Your task to perform on an android device: turn on location history Image 0: 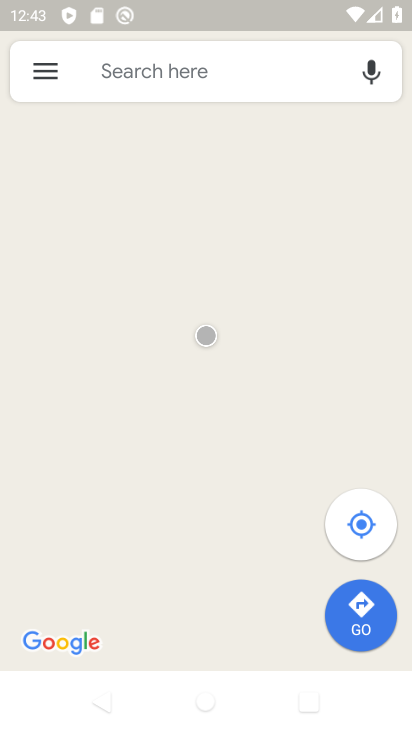
Step 0: press home button
Your task to perform on an android device: turn on location history Image 1: 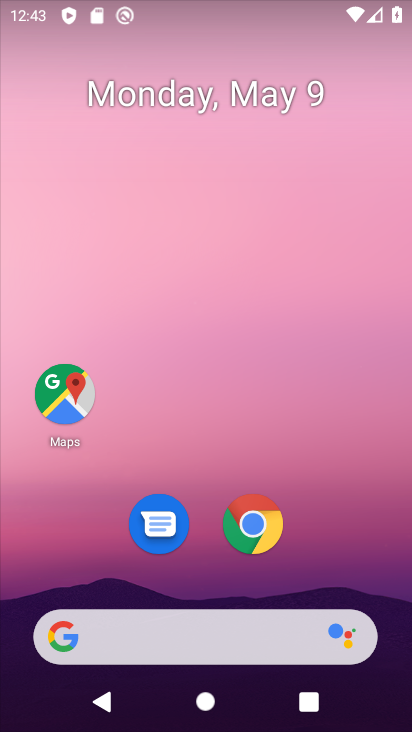
Step 1: drag from (188, 562) to (185, 149)
Your task to perform on an android device: turn on location history Image 2: 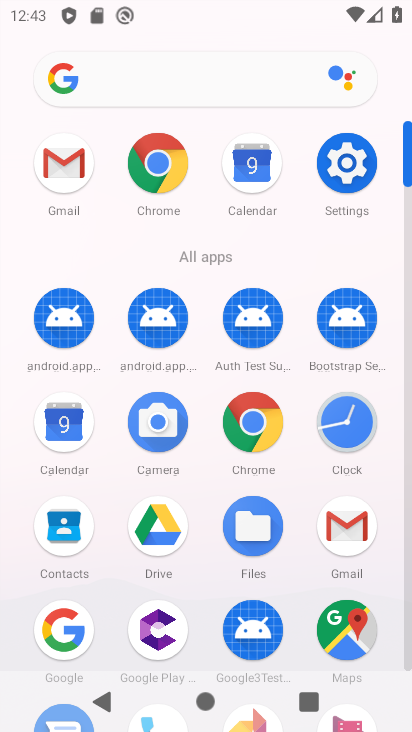
Step 2: click (327, 160)
Your task to perform on an android device: turn on location history Image 3: 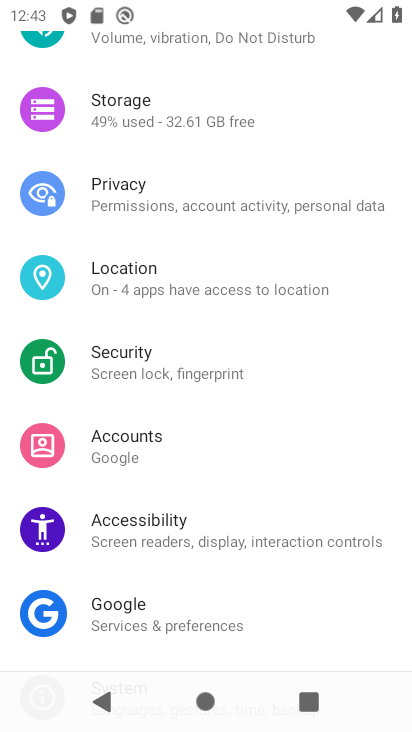
Step 3: click (169, 272)
Your task to perform on an android device: turn on location history Image 4: 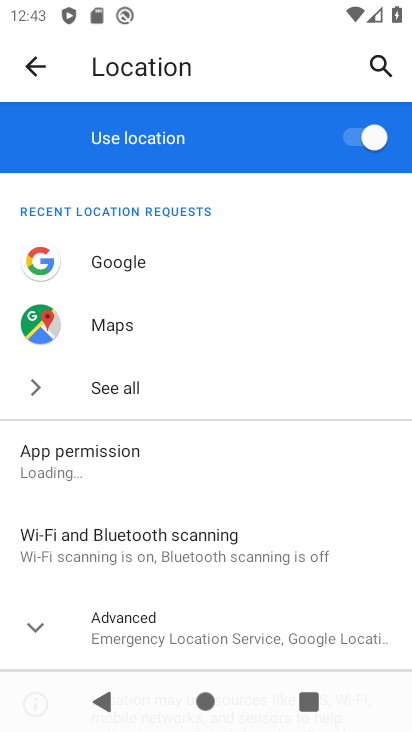
Step 4: click (28, 624)
Your task to perform on an android device: turn on location history Image 5: 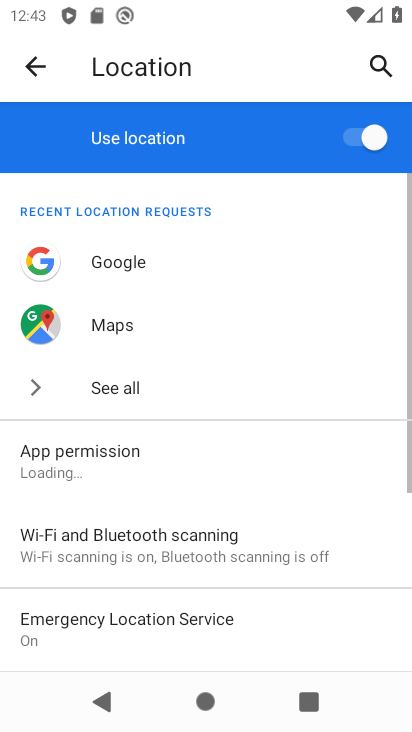
Step 5: drag from (232, 484) to (333, 89)
Your task to perform on an android device: turn on location history Image 6: 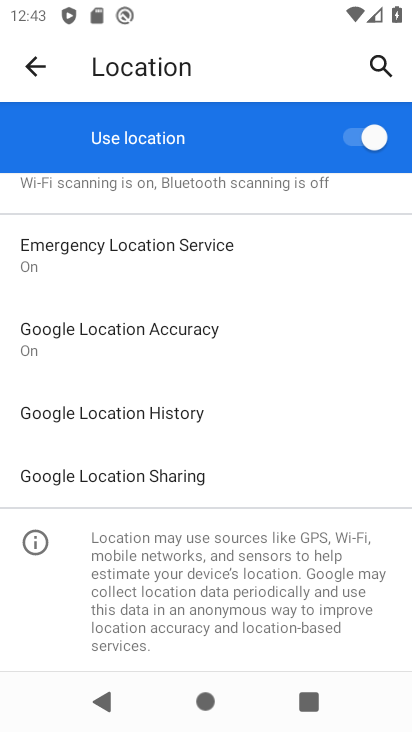
Step 6: click (137, 413)
Your task to perform on an android device: turn on location history Image 7: 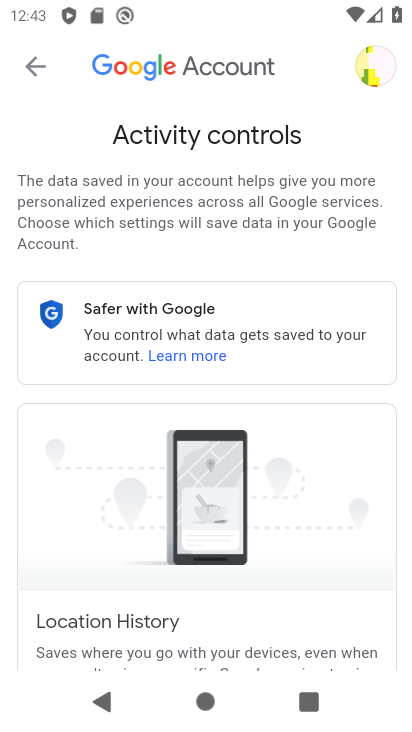
Step 7: drag from (296, 538) to (297, 169)
Your task to perform on an android device: turn on location history Image 8: 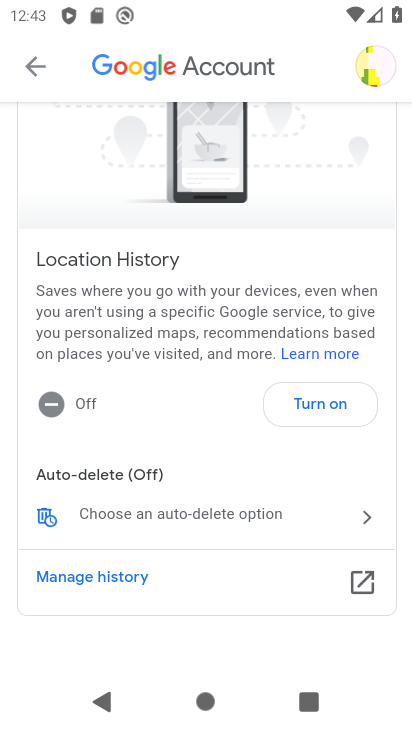
Step 8: click (342, 400)
Your task to perform on an android device: turn on location history Image 9: 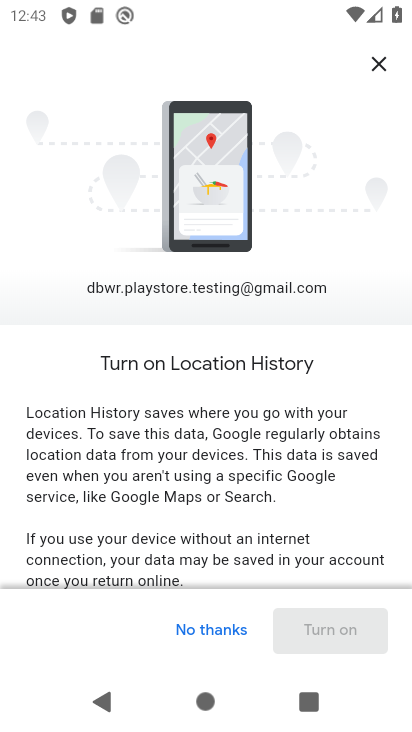
Step 9: drag from (233, 550) to (243, 61)
Your task to perform on an android device: turn on location history Image 10: 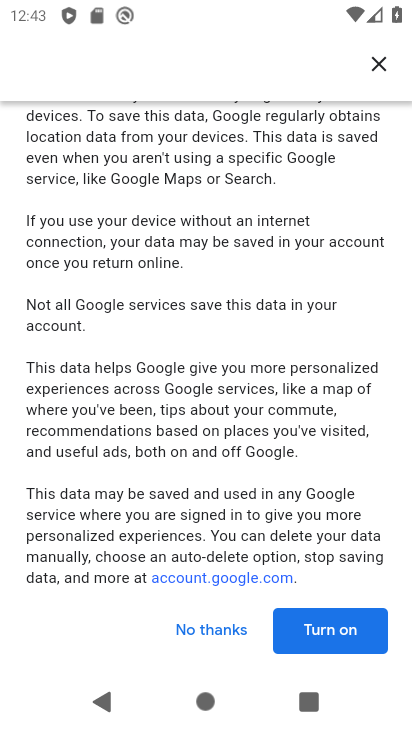
Step 10: click (324, 631)
Your task to perform on an android device: turn on location history Image 11: 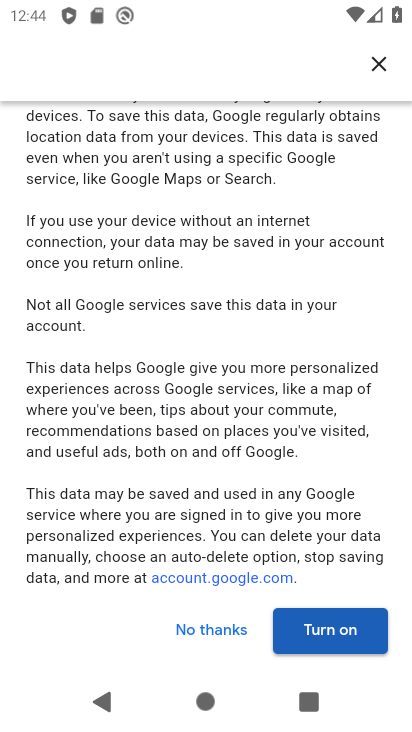
Step 11: click (333, 629)
Your task to perform on an android device: turn on location history Image 12: 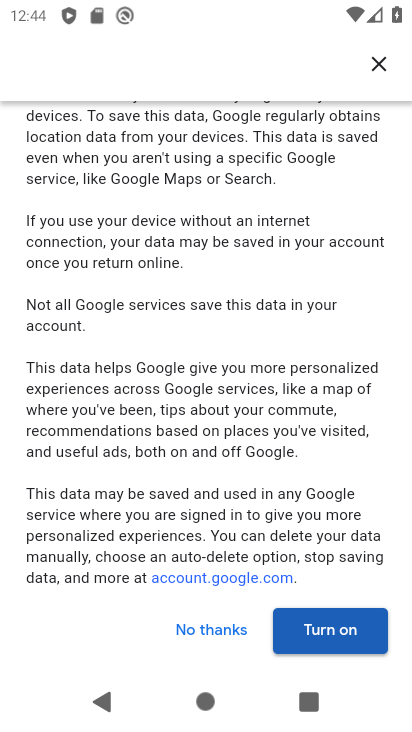
Step 12: click (333, 629)
Your task to perform on an android device: turn on location history Image 13: 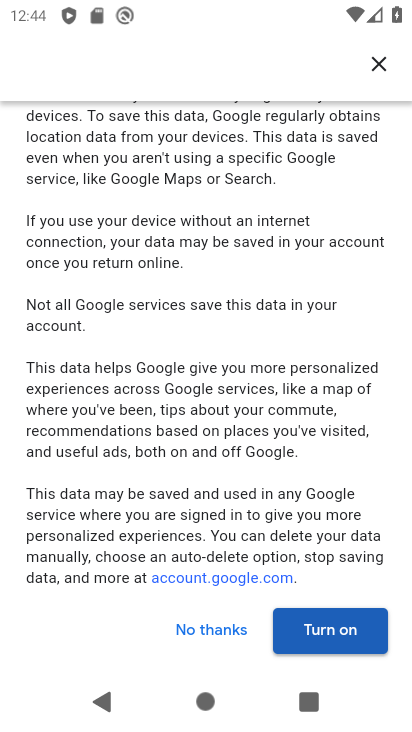
Step 13: click (333, 629)
Your task to perform on an android device: turn on location history Image 14: 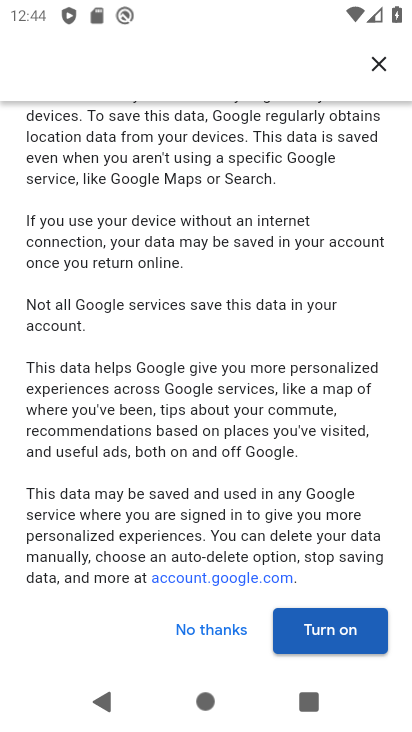
Step 14: click (375, 631)
Your task to perform on an android device: turn on location history Image 15: 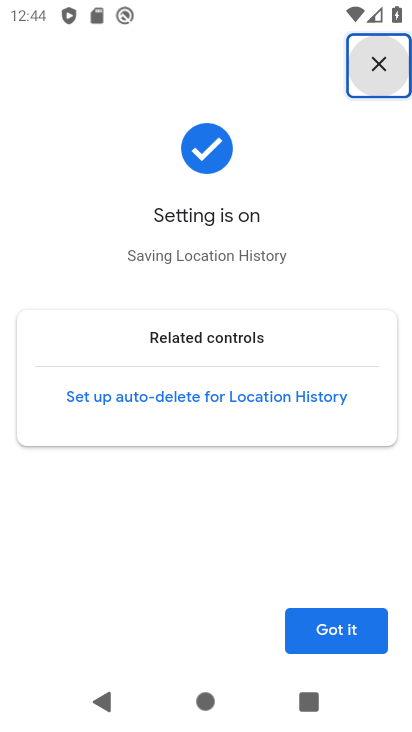
Step 15: click (353, 634)
Your task to perform on an android device: turn on location history Image 16: 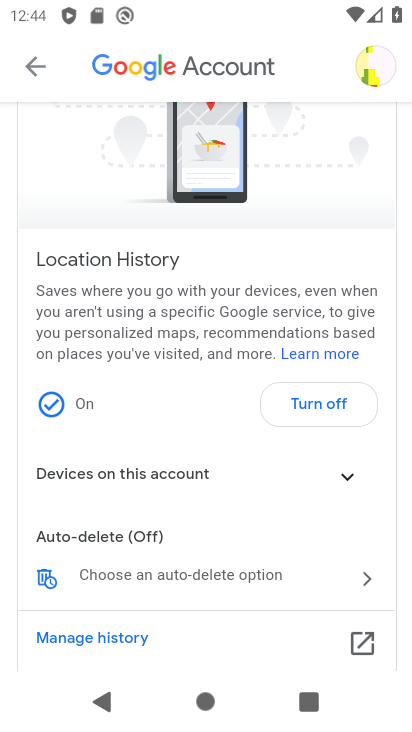
Step 16: task complete